Your task to perform on an android device: Show the shopping cart on amazon. Search for bose soundsport free on amazon, select the first entry, and add it to the cart. Image 0: 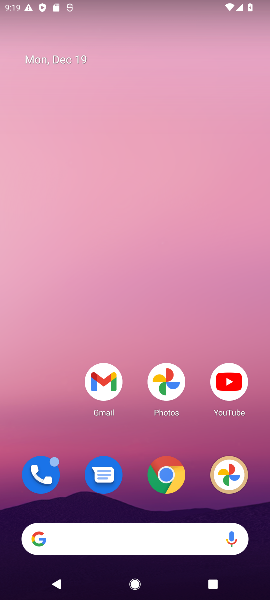
Step 0: click (172, 473)
Your task to perform on an android device: Show the shopping cart on amazon. Search for bose soundsport free on amazon, select the first entry, and add it to the cart. Image 1: 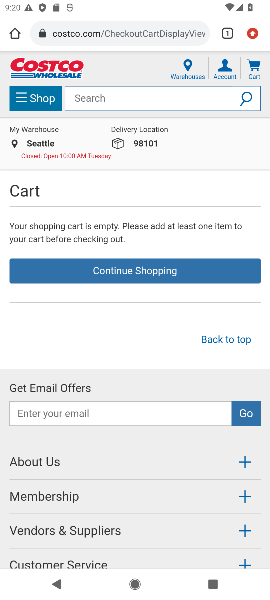
Step 1: click (128, 30)
Your task to perform on an android device: Show the shopping cart on amazon. Search for bose soundsport free on amazon, select the first entry, and add it to the cart. Image 2: 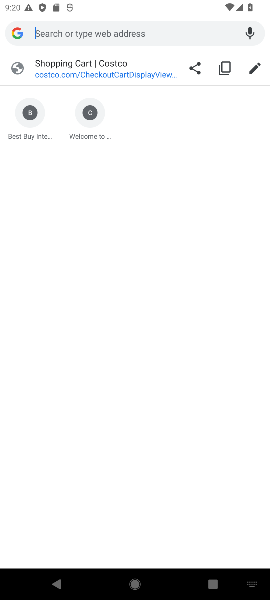
Step 2: type "amazon"
Your task to perform on an android device: Show the shopping cart on amazon. Search for bose soundsport free on amazon, select the first entry, and add it to the cart. Image 3: 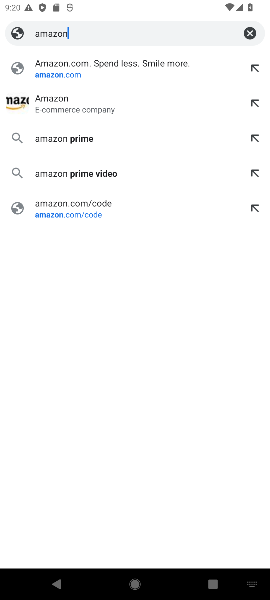
Step 3: click (78, 71)
Your task to perform on an android device: Show the shopping cart on amazon. Search for bose soundsport free on amazon, select the first entry, and add it to the cart. Image 4: 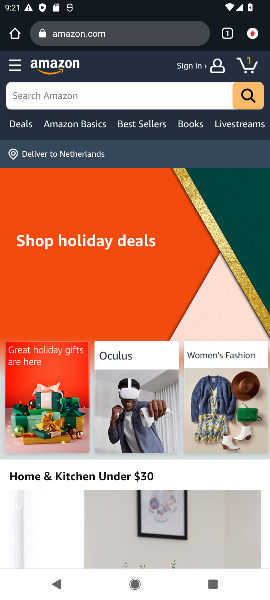
Step 4: click (138, 97)
Your task to perform on an android device: Show the shopping cart on amazon. Search for bose soundsport free on amazon, select the first entry, and add it to the cart. Image 5: 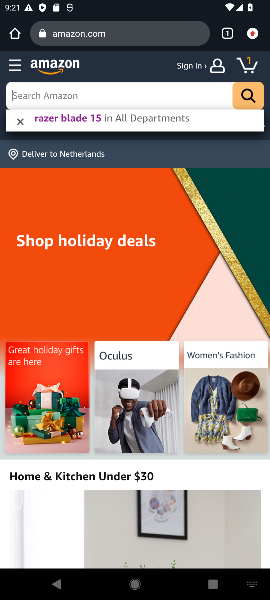
Step 5: type "bose soundsport free"
Your task to perform on an android device: Show the shopping cart on amazon. Search for bose soundsport free on amazon, select the first entry, and add it to the cart. Image 6: 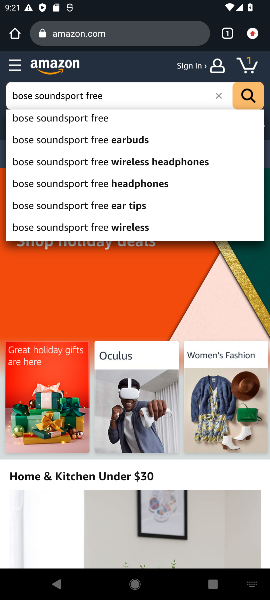
Step 6: click (35, 119)
Your task to perform on an android device: Show the shopping cart on amazon. Search for bose soundsport free on amazon, select the first entry, and add it to the cart. Image 7: 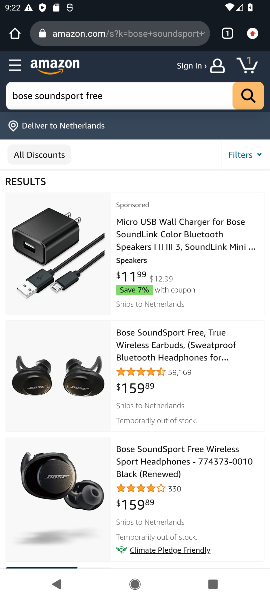
Step 7: click (174, 248)
Your task to perform on an android device: Show the shopping cart on amazon. Search for bose soundsport free on amazon, select the first entry, and add it to the cart. Image 8: 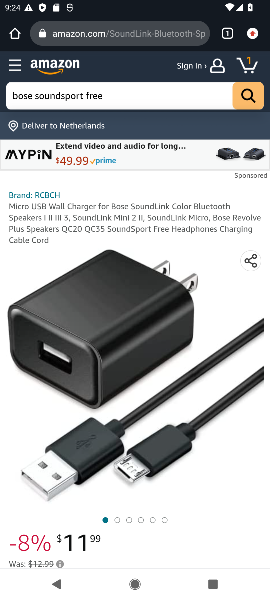
Step 8: drag from (200, 474) to (150, 169)
Your task to perform on an android device: Show the shopping cart on amazon. Search for bose soundsport free on amazon, select the first entry, and add it to the cart. Image 9: 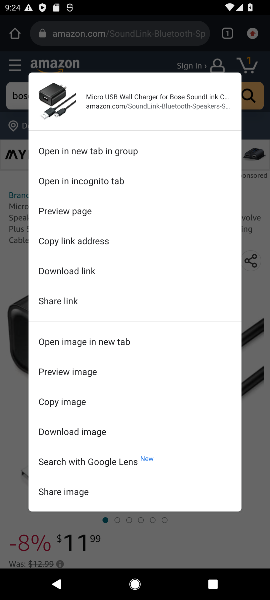
Step 9: click (255, 321)
Your task to perform on an android device: Show the shopping cart on amazon. Search for bose soundsport free on amazon, select the first entry, and add it to the cart. Image 10: 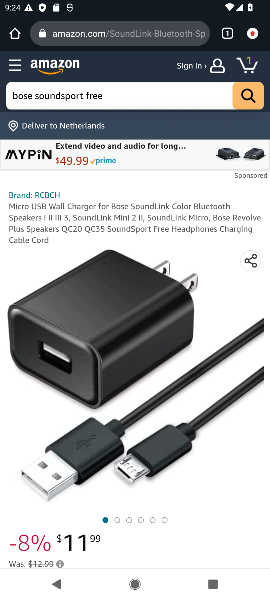
Step 10: drag from (180, 469) to (145, 125)
Your task to perform on an android device: Show the shopping cart on amazon. Search for bose soundsport free on amazon, select the first entry, and add it to the cart. Image 11: 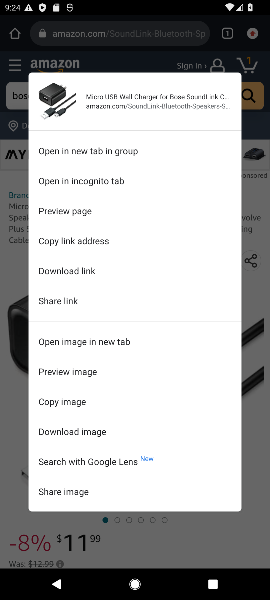
Step 11: click (175, 535)
Your task to perform on an android device: Show the shopping cart on amazon. Search for bose soundsport free on amazon, select the first entry, and add it to the cart. Image 12: 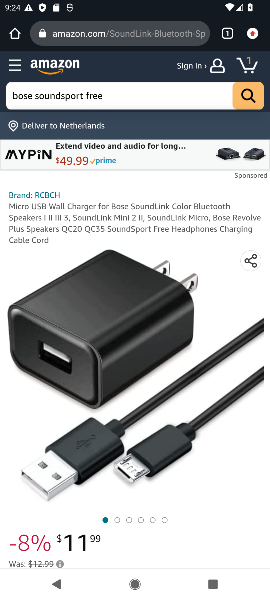
Step 12: task complete